Your task to perform on an android device: uninstall "DoorDash - Dasher" Image 0: 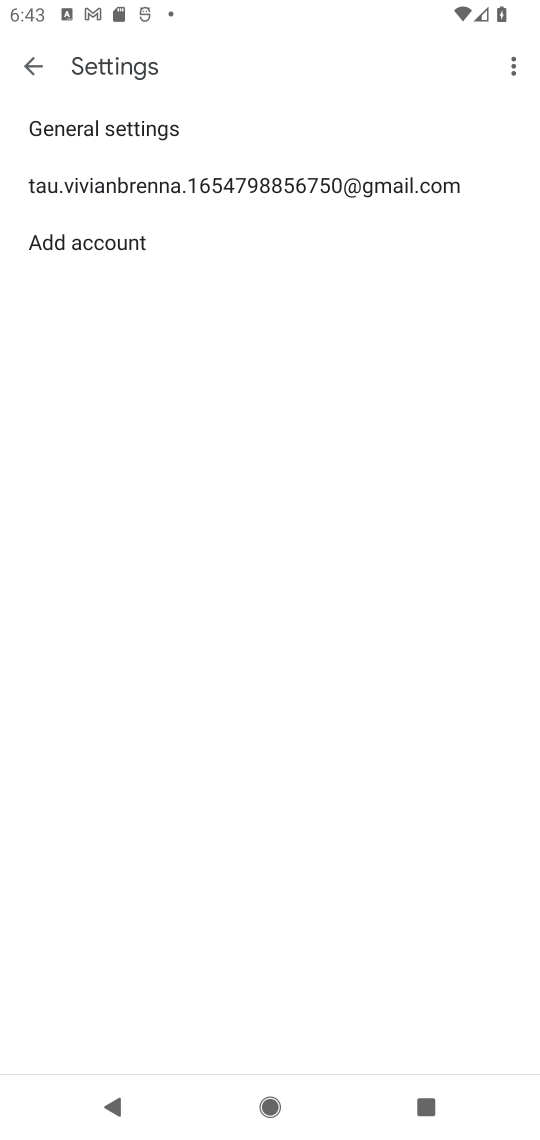
Step 0: press back button
Your task to perform on an android device: uninstall "DoorDash - Dasher" Image 1: 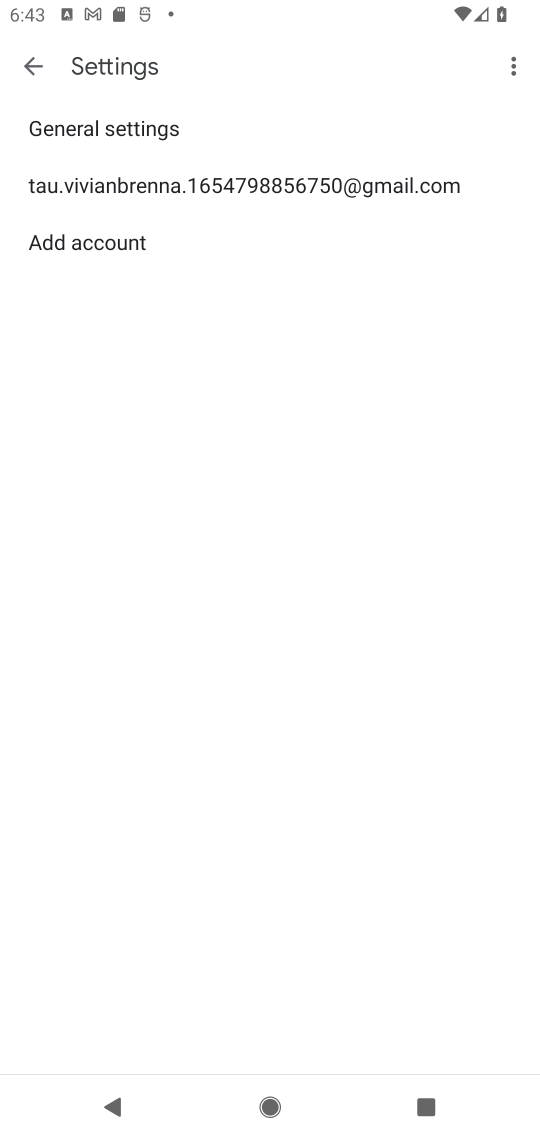
Step 1: press back button
Your task to perform on an android device: uninstall "DoorDash - Dasher" Image 2: 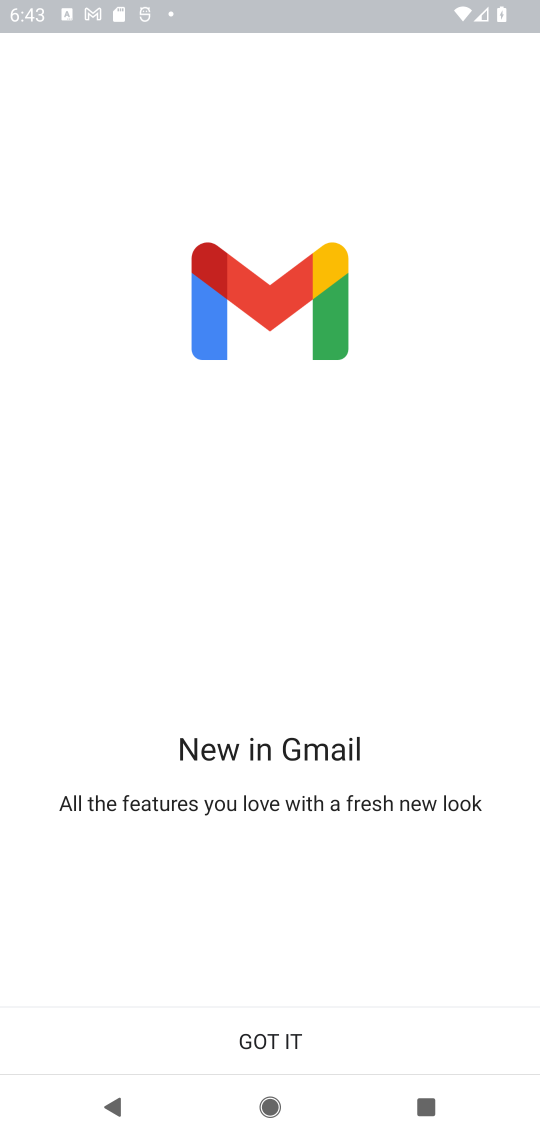
Step 2: press back button
Your task to perform on an android device: uninstall "DoorDash - Dasher" Image 3: 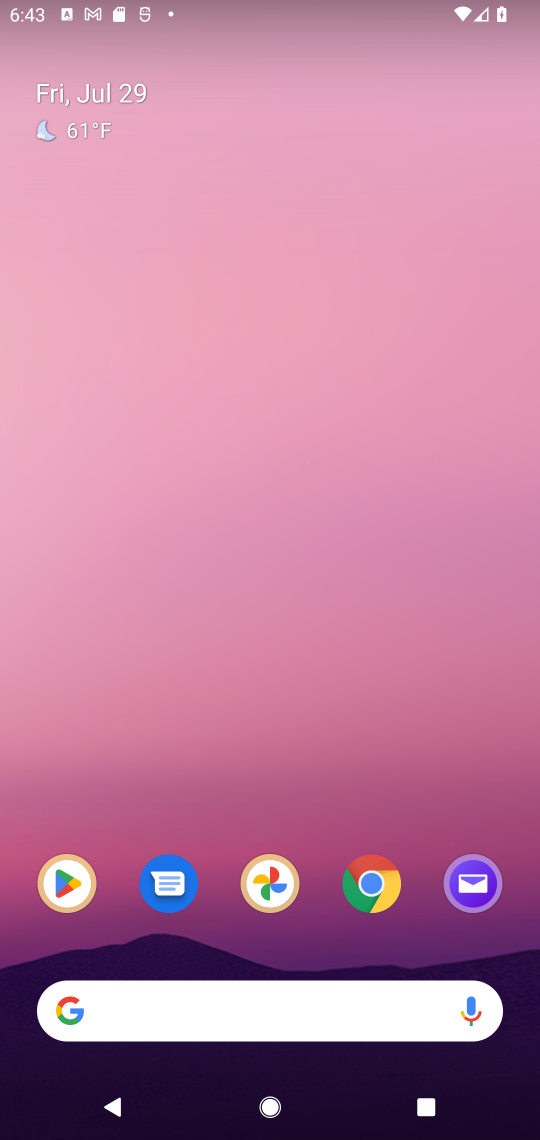
Step 3: click (79, 892)
Your task to perform on an android device: uninstall "DoorDash - Dasher" Image 4: 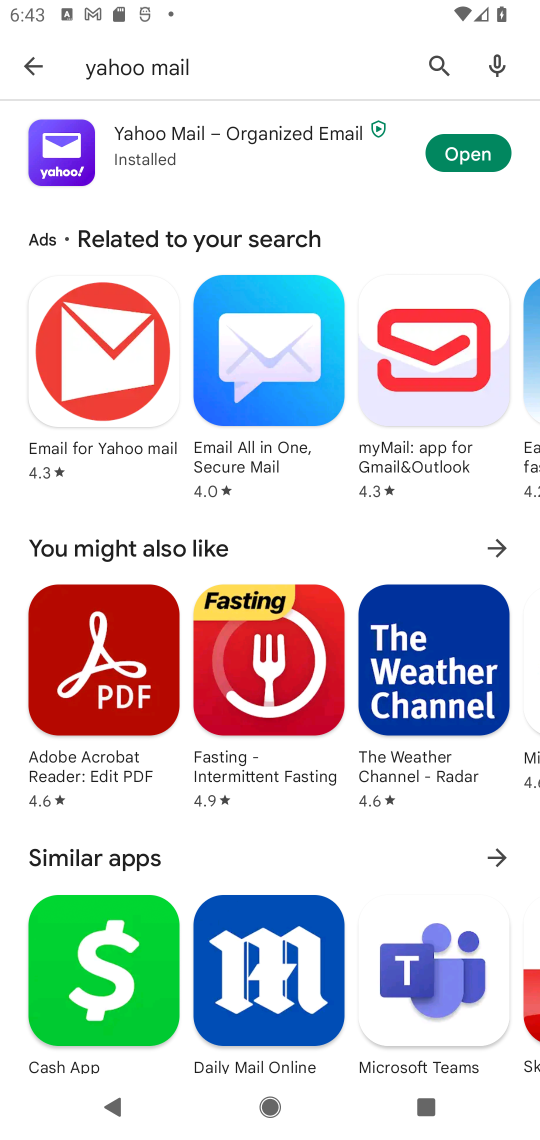
Step 4: click (442, 55)
Your task to perform on an android device: uninstall "DoorDash - Dasher" Image 5: 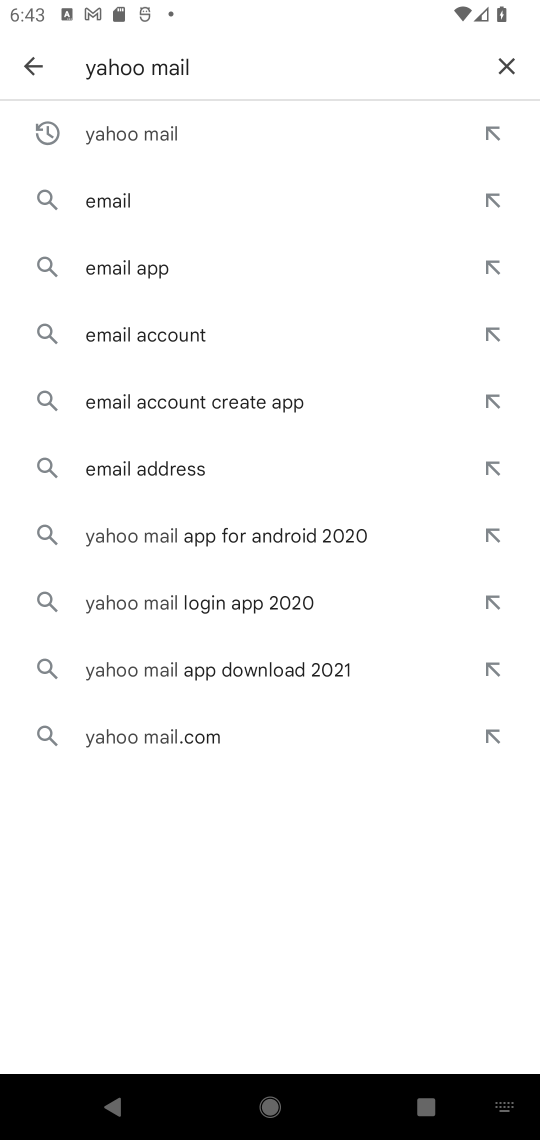
Step 5: click (508, 61)
Your task to perform on an android device: uninstall "DoorDash - Dasher" Image 6: 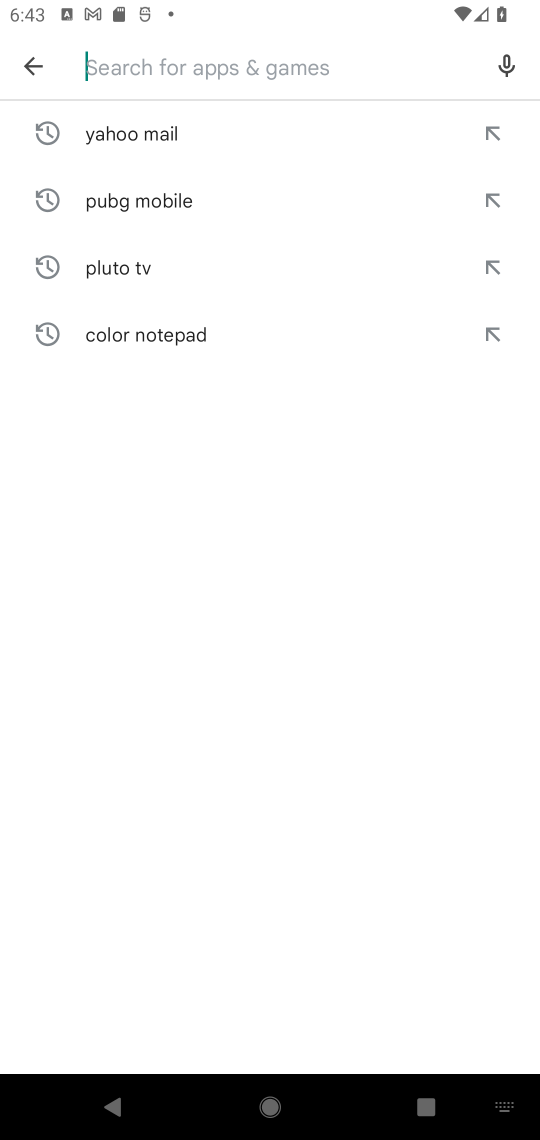
Step 6: click (180, 64)
Your task to perform on an android device: uninstall "DoorDash - Dasher" Image 7: 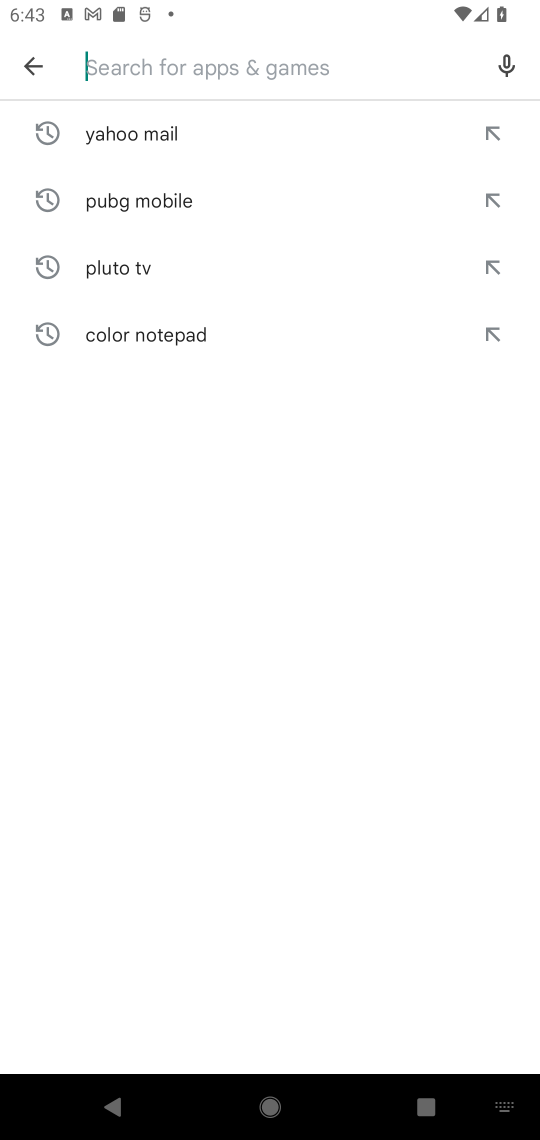
Step 7: type "doordash"
Your task to perform on an android device: uninstall "DoorDash - Dasher" Image 8: 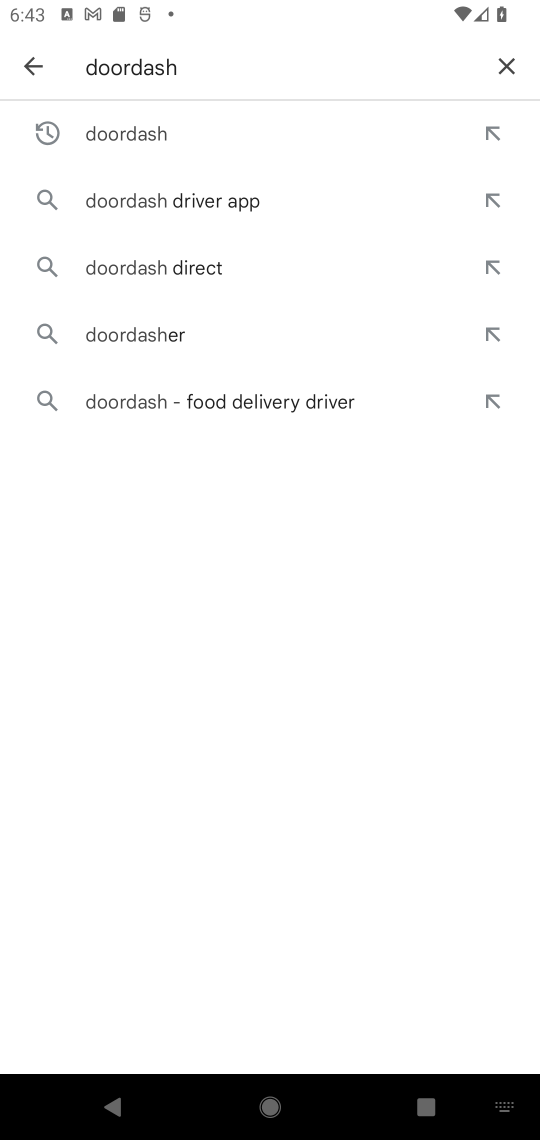
Step 8: click (130, 138)
Your task to perform on an android device: uninstall "DoorDash - Dasher" Image 9: 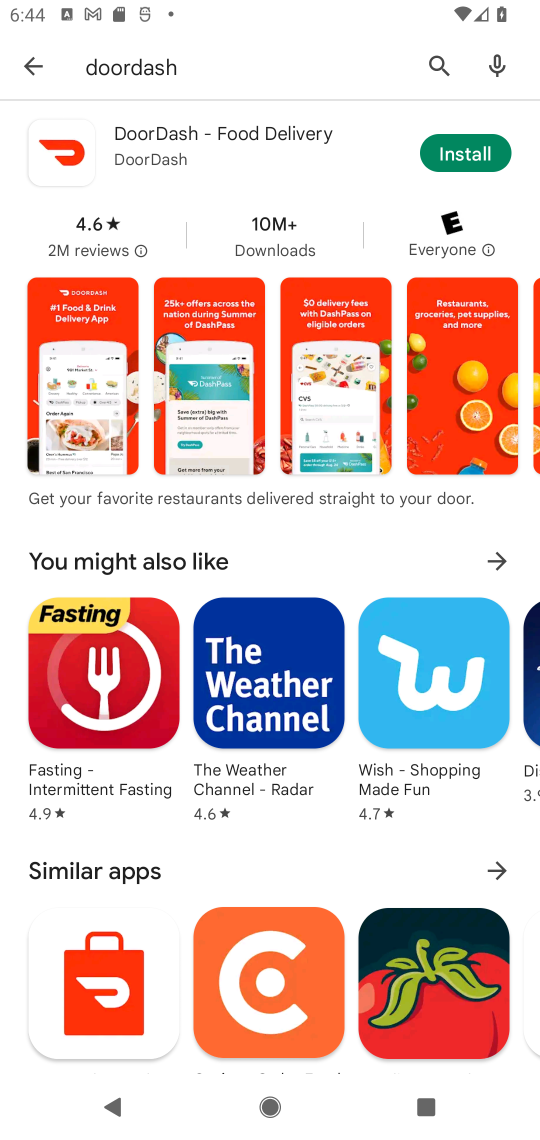
Step 9: drag from (314, 779) to (345, 685)
Your task to perform on an android device: uninstall "DoorDash - Dasher" Image 10: 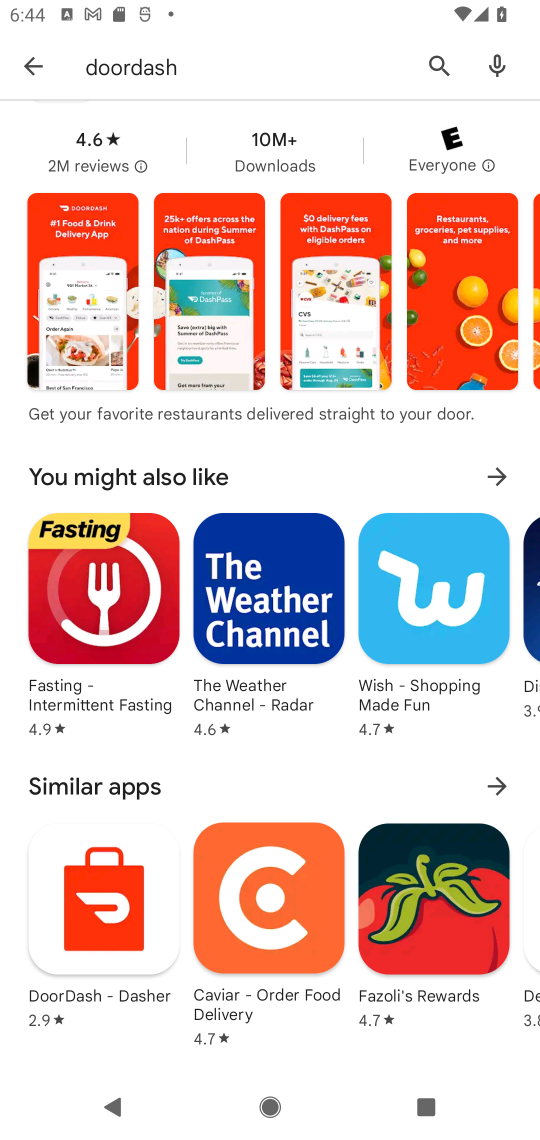
Step 10: click (119, 911)
Your task to perform on an android device: uninstall "DoorDash - Dasher" Image 11: 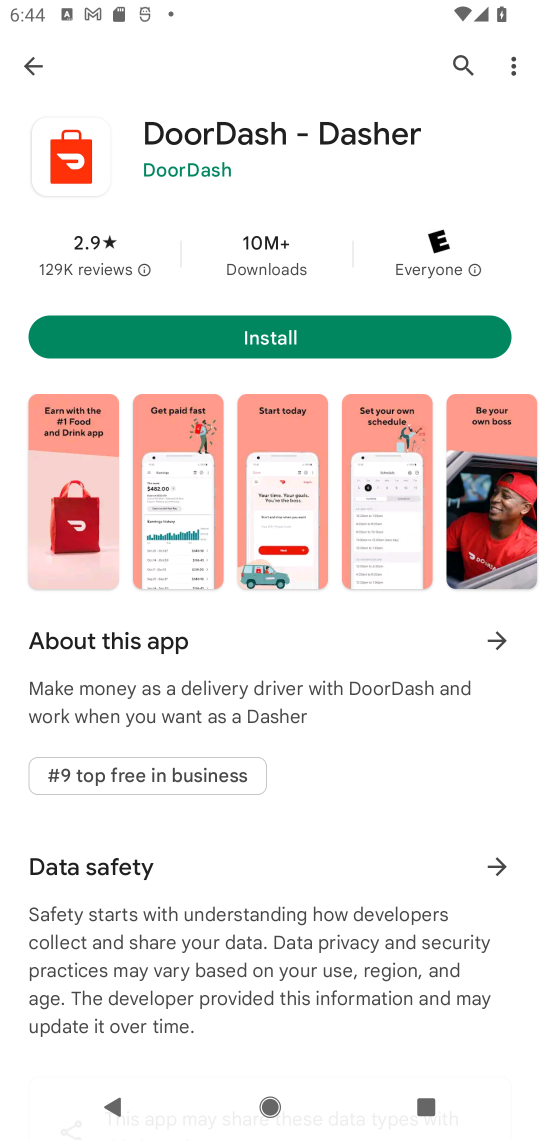
Step 11: task complete